Your task to perform on an android device: delete location history Image 0: 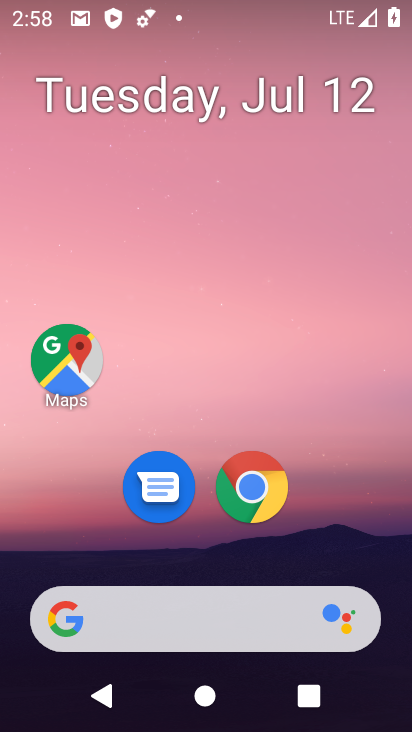
Step 0: drag from (243, 576) to (288, 81)
Your task to perform on an android device: delete location history Image 1: 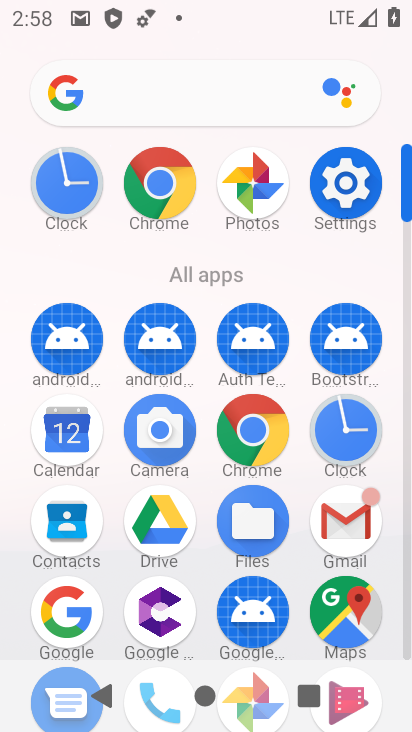
Step 1: click (339, 208)
Your task to perform on an android device: delete location history Image 2: 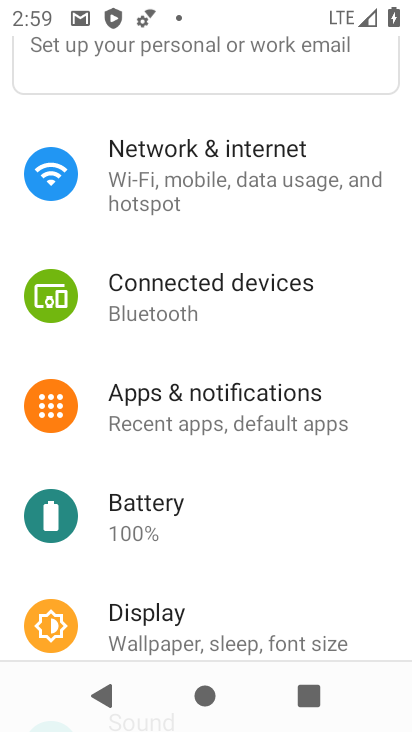
Step 2: drag from (241, 487) to (301, 154)
Your task to perform on an android device: delete location history Image 3: 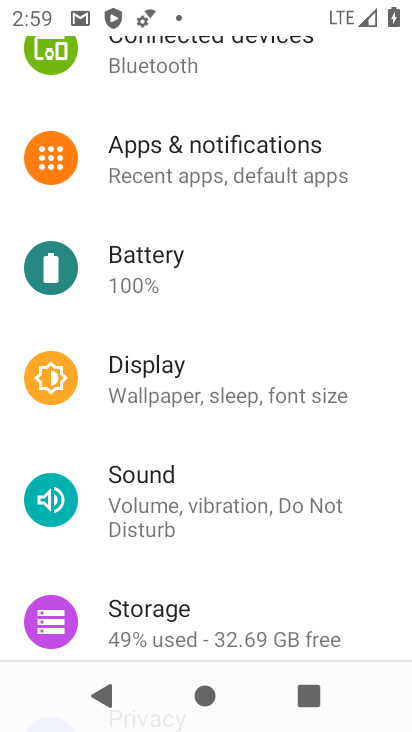
Step 3: drag from (203, 525) to (273, 78)
Your task to perform on an android device: delete location history Image 4: 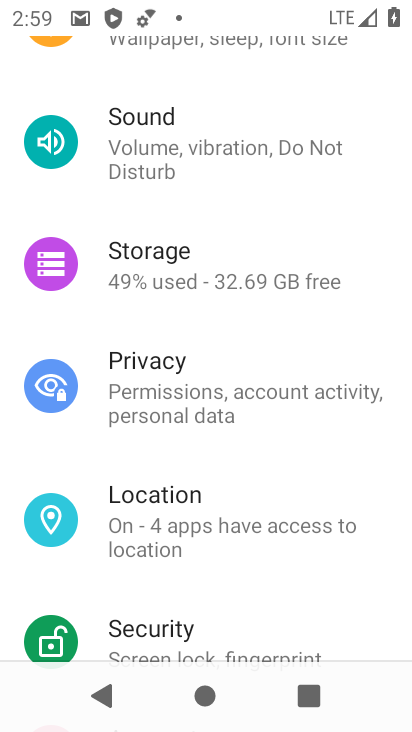
Step 4: click (180, 527)
Your task to perform on an android device: delete location history Image 5: 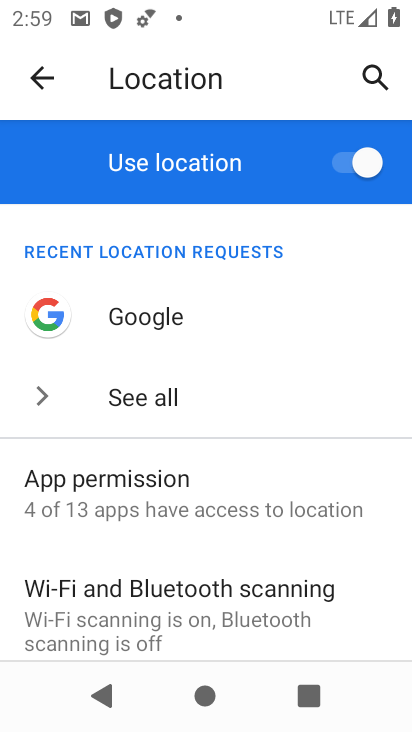
Step 5: drag from (194, 535) to (248, 105)
Your task to perform on an android device: delete location history Image 6: 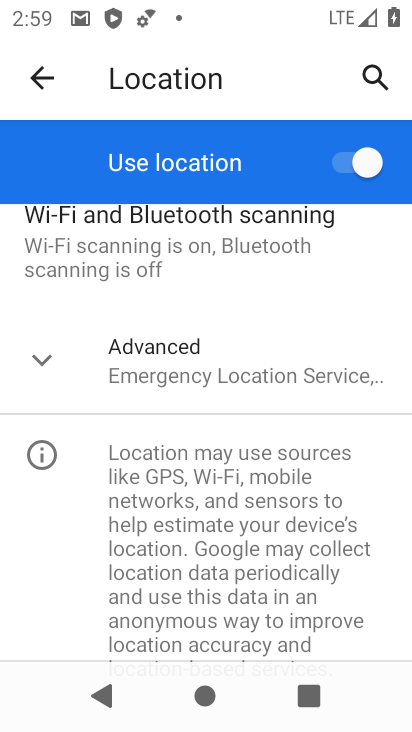
Step 6: drag from (192, 532) to (270, 146)
Your task to perform on an android device: delete location history Image 7: 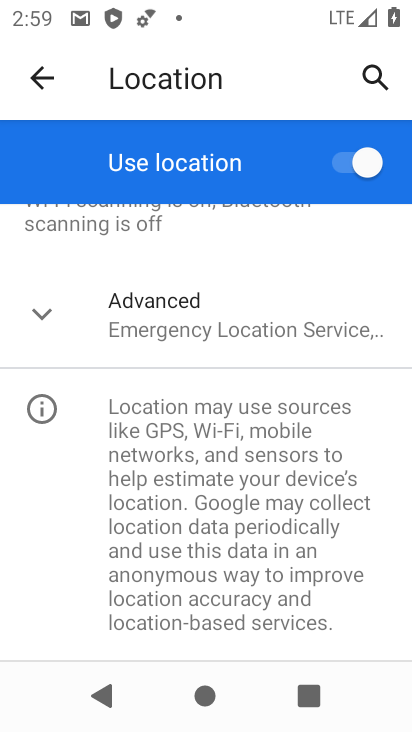
Step 7: click (190, 336)
Your task to perform on an android device: delete location history Image 8: 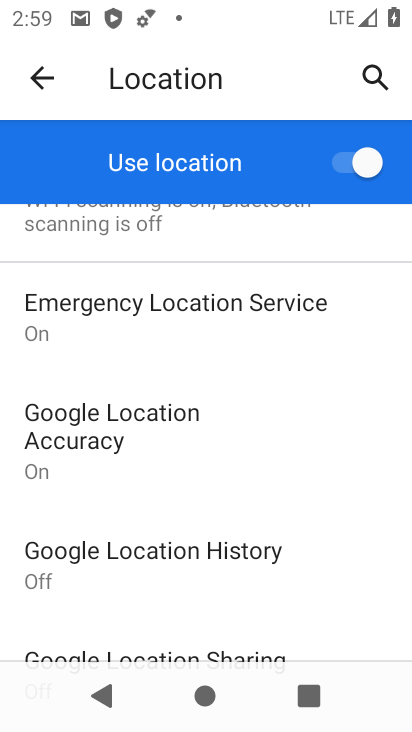
Step 8: click (198, 550)
Your task to perform on an android device: delete location history Image 9: 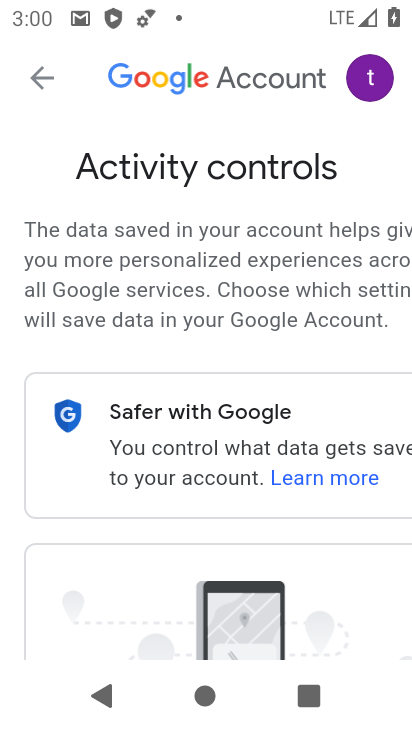
Step 9: drag from (269, 582) to (301, 34)
Your task to perform on an android device: delete location history Image 10: 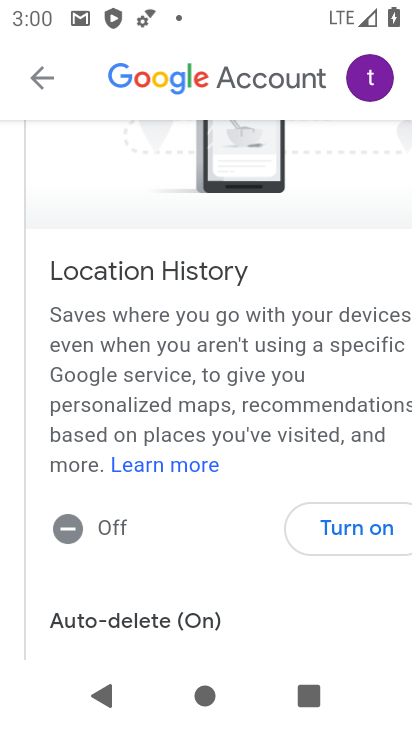
Step 10: drag from (234, 609) to (277, 116)
Your task to perform on an android device: delete location history Image 11: 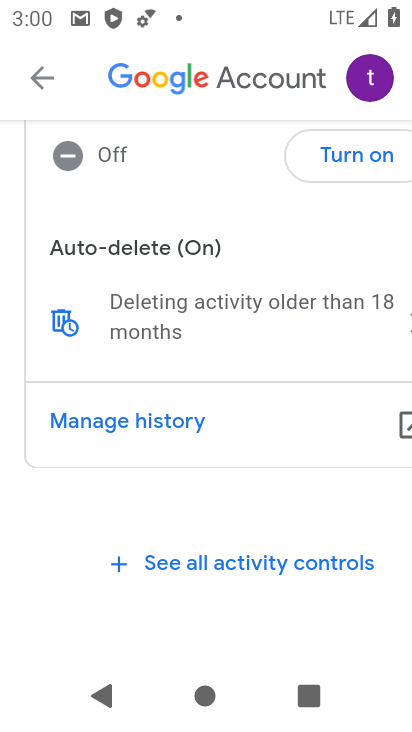
Step 11: drag from (244, 436) to (82, 197)
Your task to perform on an android device: delete location history Image 12: 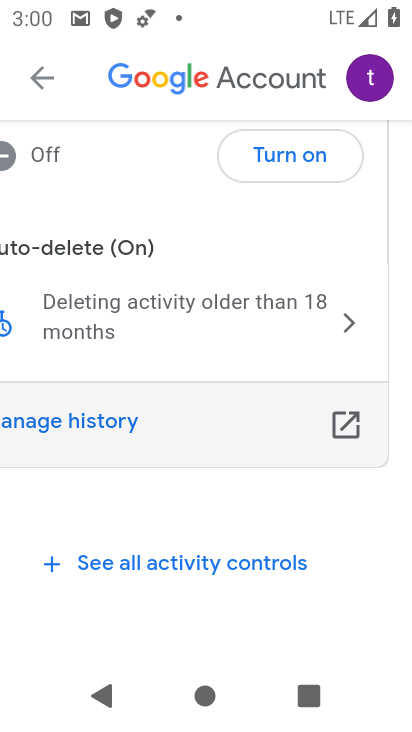
Step 12: click (141, 350)
Your task to perform on an android device: delete location history Image 13: 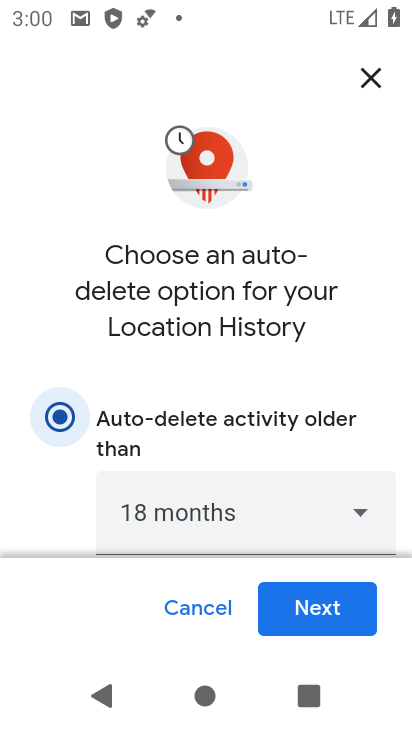
Step 13: click (311, 613)
Your task to perform on an android device: delete location history Image 14: 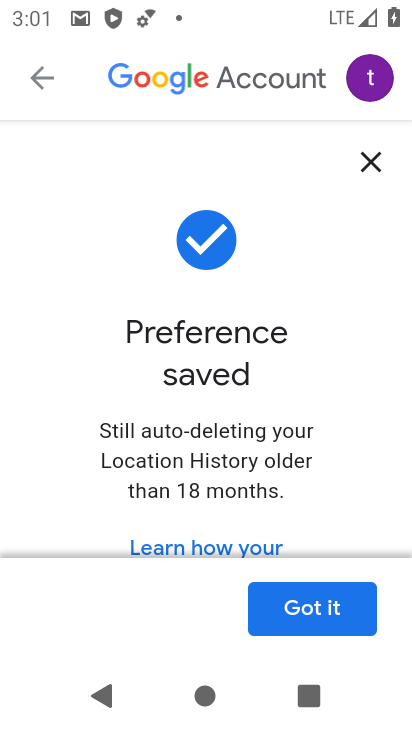
Step 14: click (344, 612)
Your task to perform on an android device: delete location history Image 15: 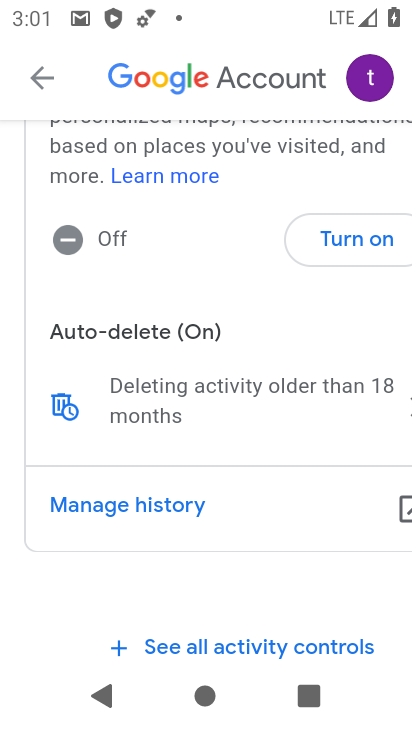
Step 15: task complete